Your task to perform on an android device: open app "Calculator" Image 0: 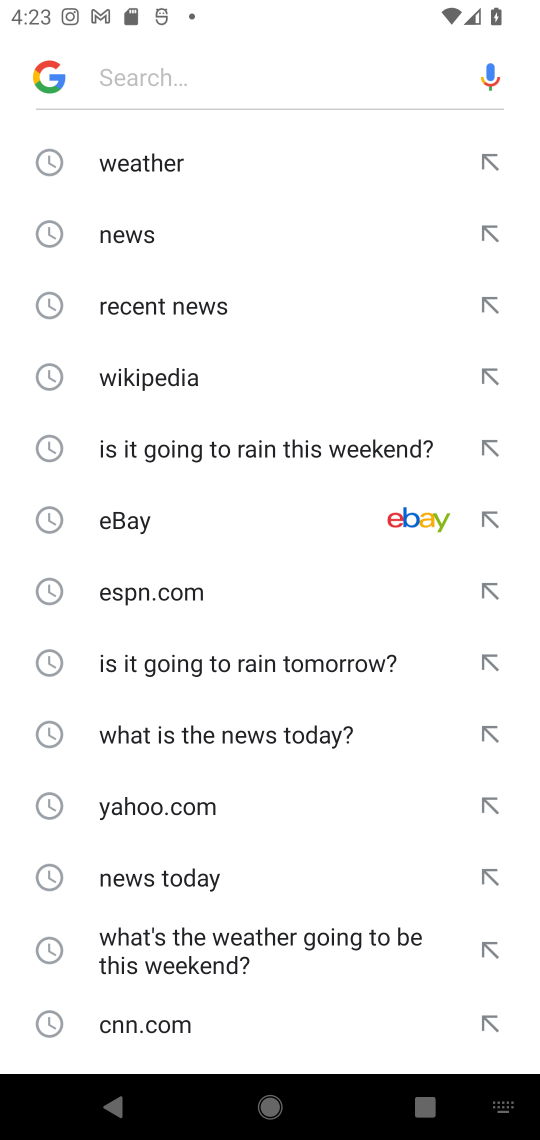
Step 0: press home button
Your task to perform on an android device: open app "Calculator" Image 1: 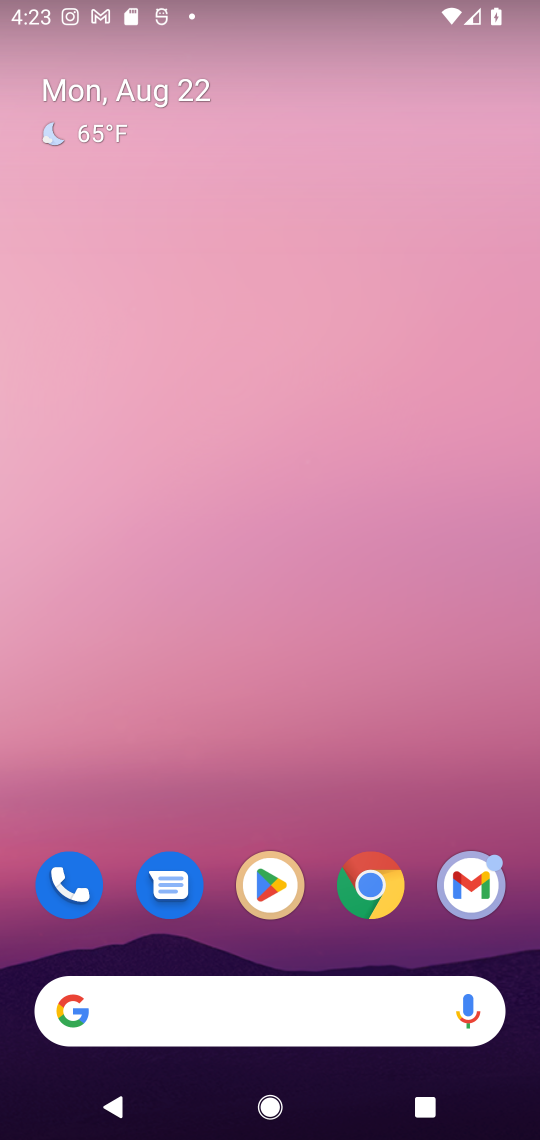
Step 1: click (265, 871)
Your task to perform on an android device: open app "Calculator" Image 2: 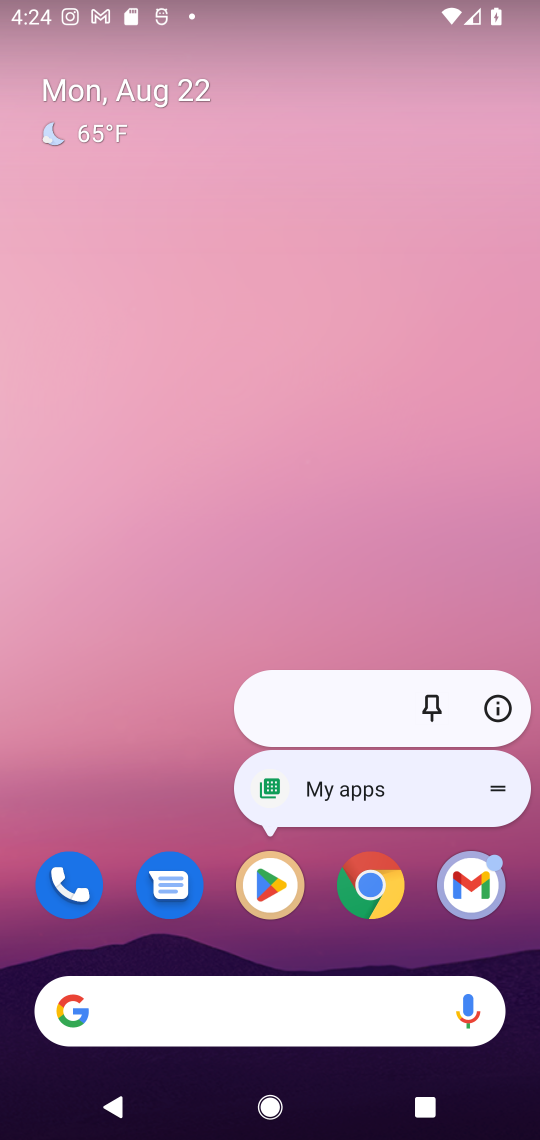
Step 2: click (266, 874)
Your task to perform on an android device: open app "Calculator" Image 3: 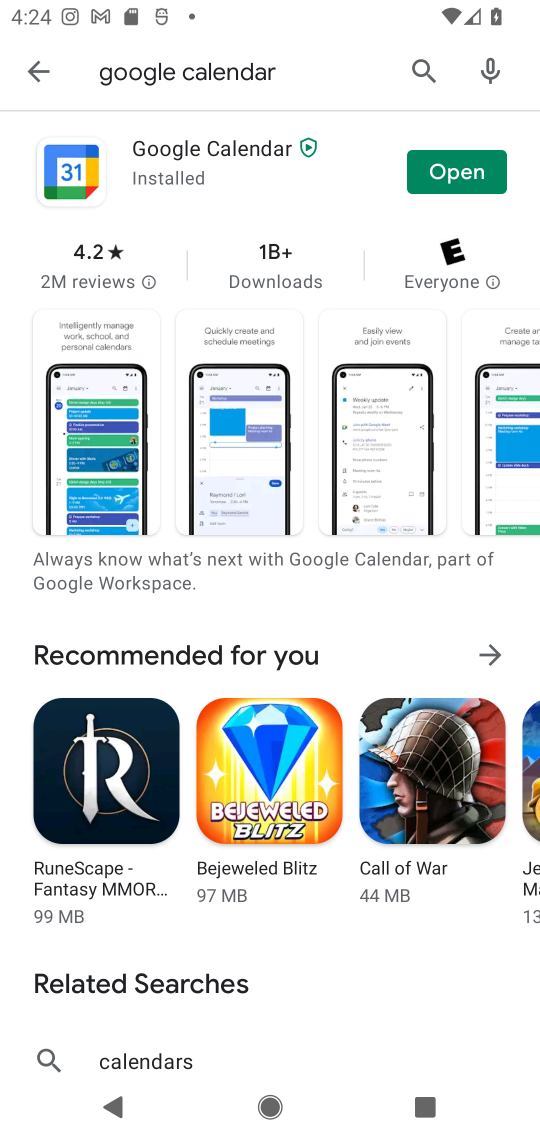
Step 3: click (413, 65)
Your task to perform on an android device: open app "Calculator" Image 4: 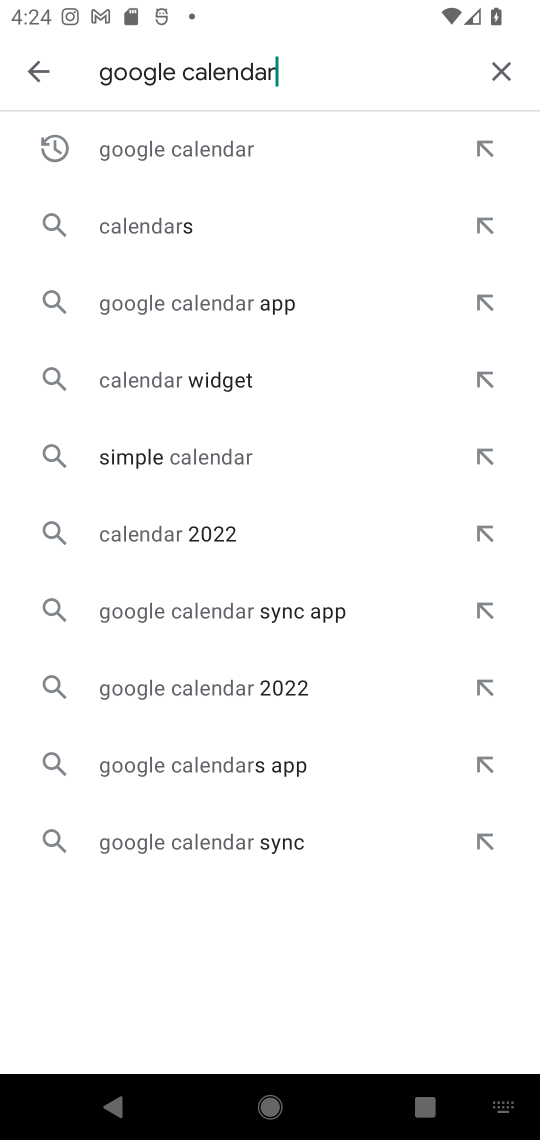
Step 4: click (499, 74)
Your task to perform on an android device: open app "Calculator" Image 5: 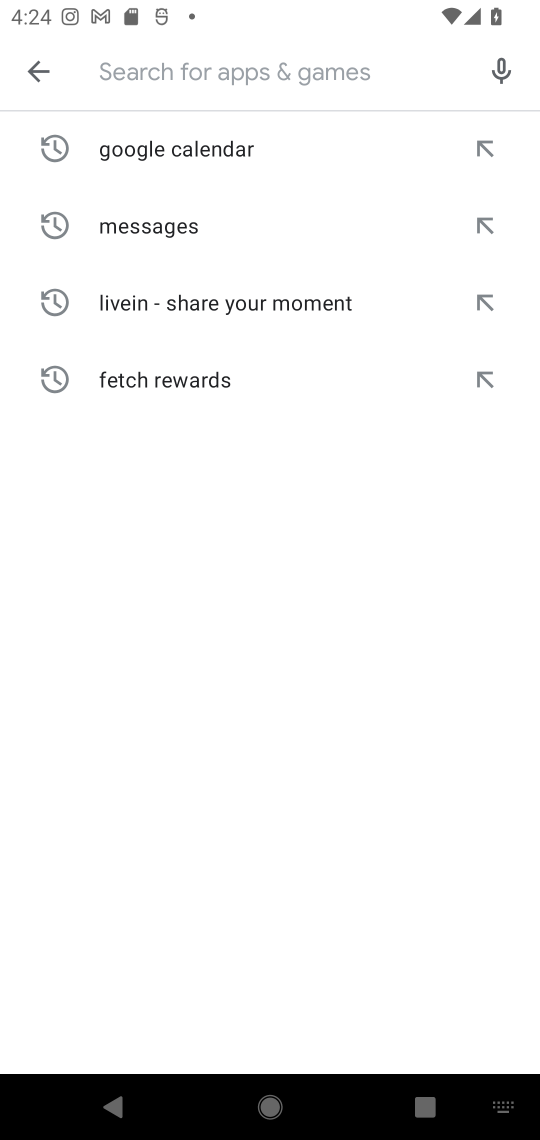
Step 5: type "Calculator"
Your task to perform on an android device: open app "Calculator" Image 6: 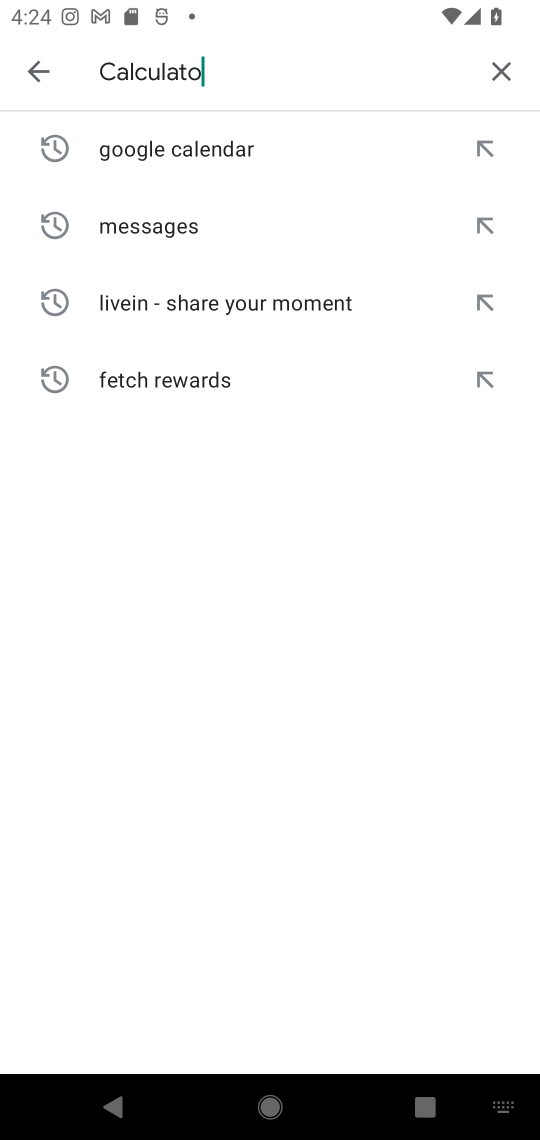
Step 6: type ""
Your task to perform on an android device: open app "Calculator" Image 7: 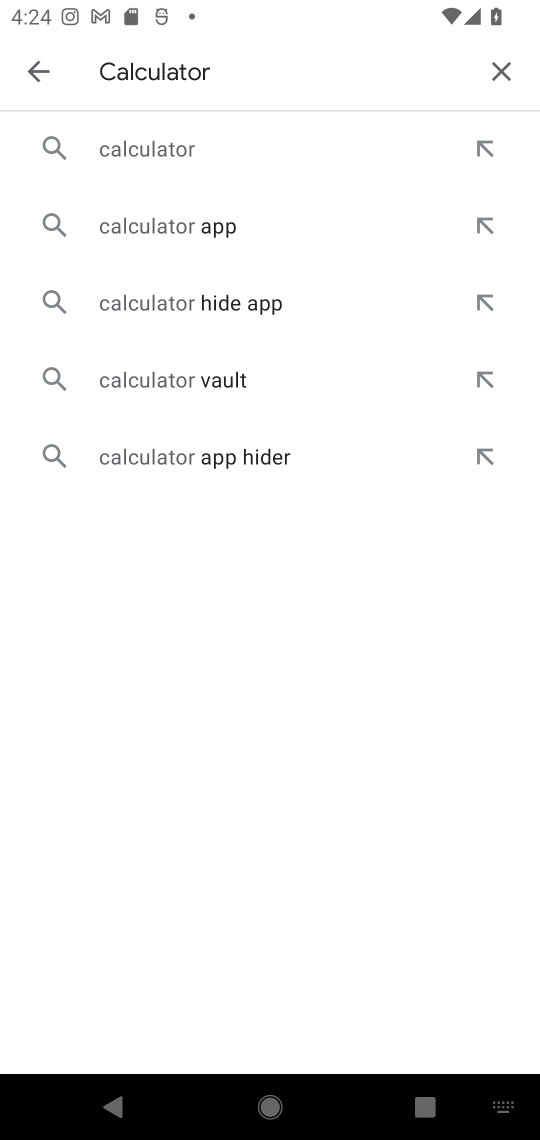
Step 7: click (194, 136)
Your task to perform on an android device: open app "Calculator" Image 8: 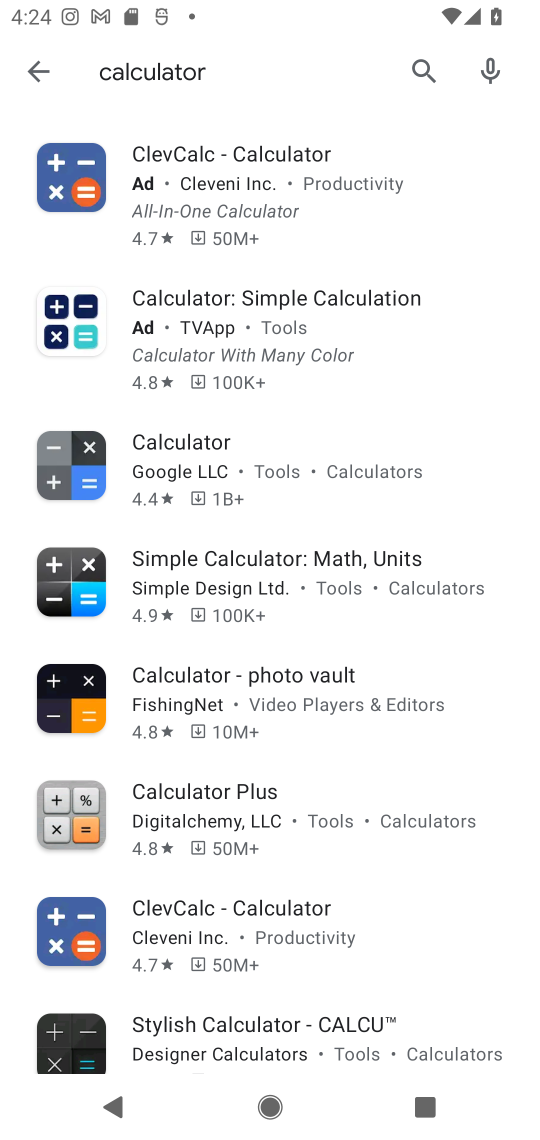
Step 8: click (195, 477)
Your task to perform on an android device: open app "Calculator" Image 9: 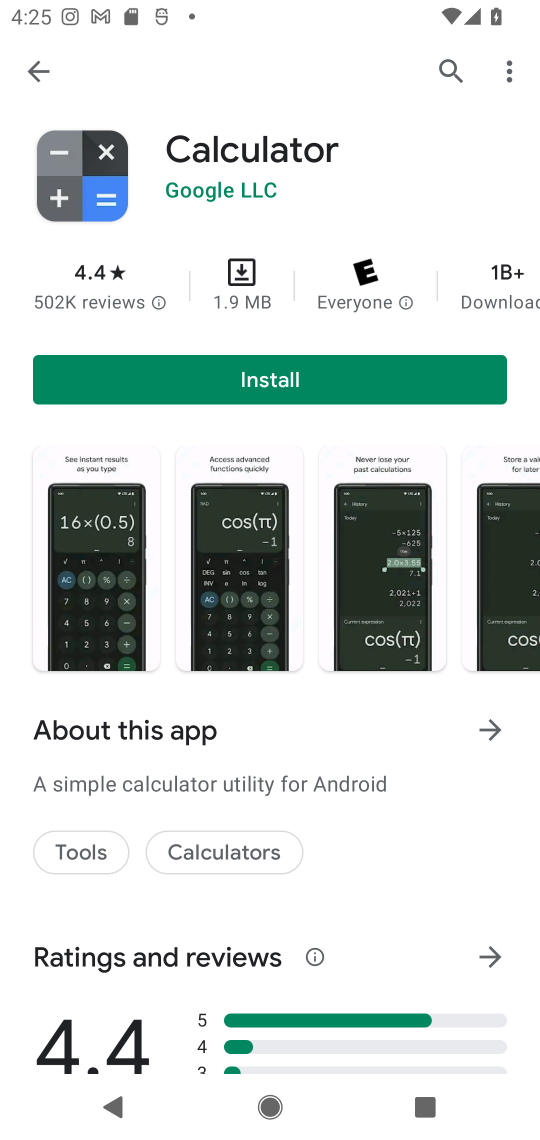
Step 9: task complete